Your task to perform on an android device: Go to notification settings Image 0: 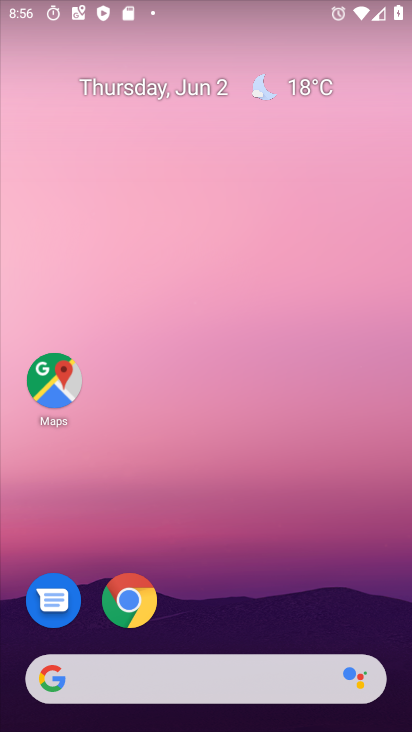
Step 0: drag from (375, 614) to (388, 185)
Your task to perform on an android device: Go to notification settings Image 1: 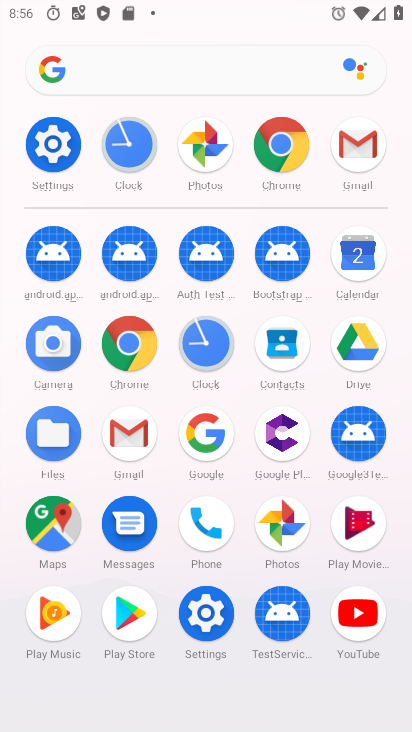
Step 1: click (63, 163)
Your task to perform on an android device: Go to notification settings Image 2: 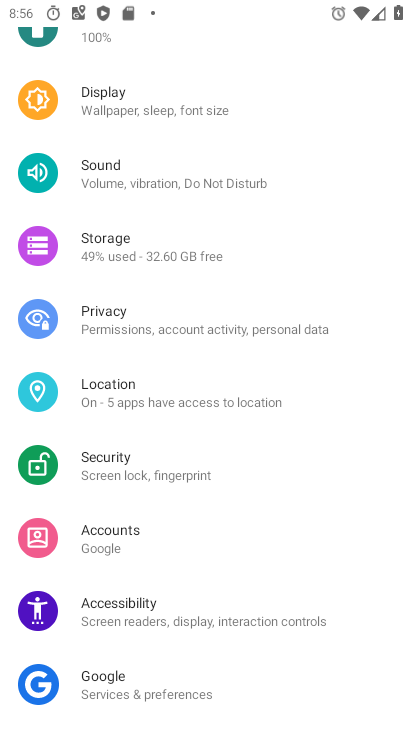
Step 2: drag from (290, 507) to (310, 423)
Your task to perform on an android device: Go to notification settings Image 3: 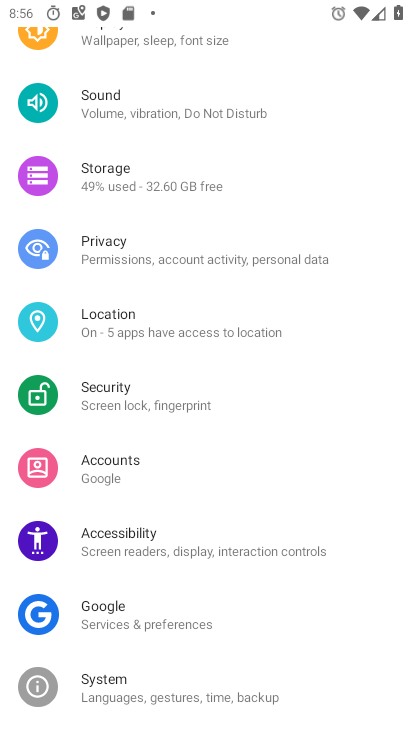
Step 3: drag from (340, 574) to (348, 476)
Your task to perform on an android device: Go to notification settings Image 4: 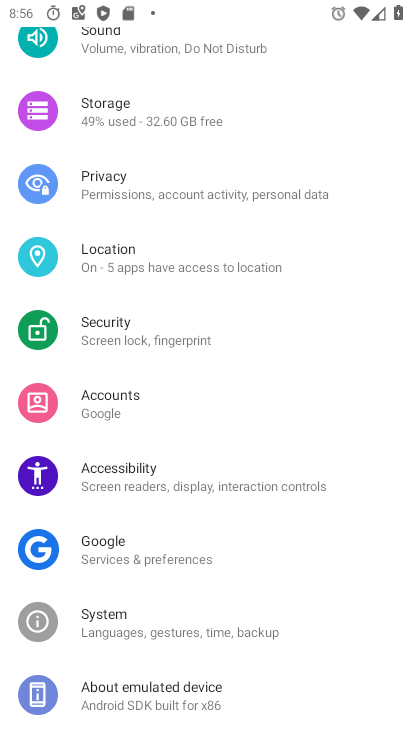
Step 4: drag from (358, 573) to (365, 448)
Your task to perform on an android device: Go to notification settings Image 5: 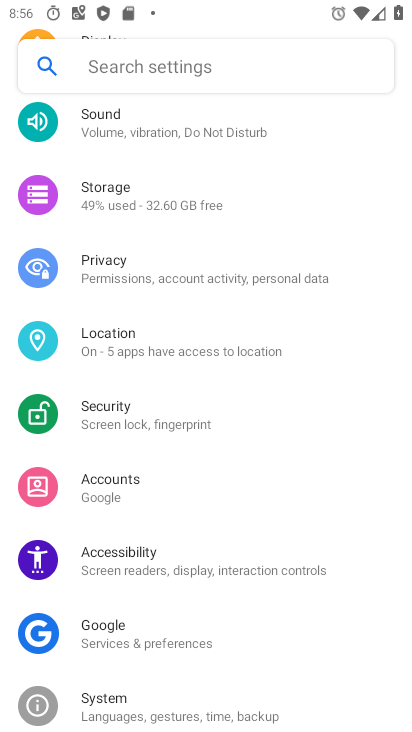
Step 5: drag from (350, 365) to (341, 450)
Your task to perform on an android device: Go to notification settings Image 6: 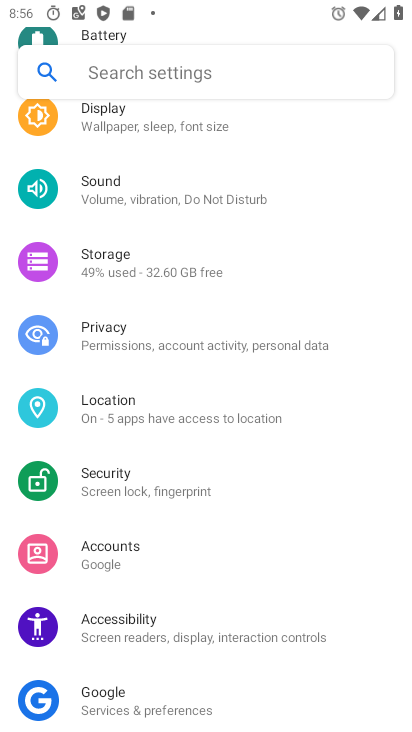
Step 6: drag from (352, 339) to (341, 431)
Your task to perform on an android device: Go to notification settings Image 7: 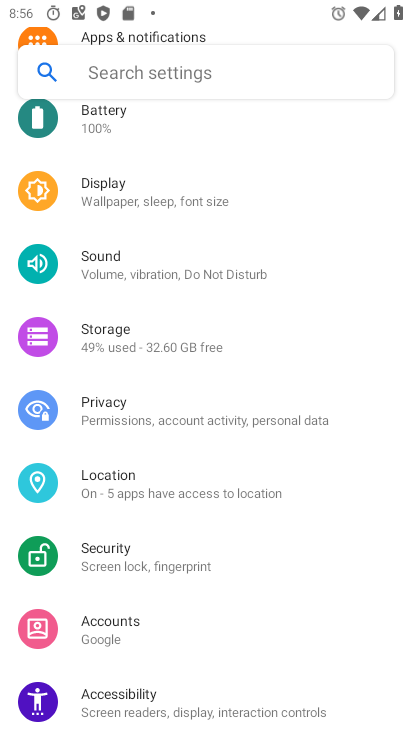
Step 7: drag from (349, 340) to (349, 437)
Your task to perform on an android device: Go to notification settings Image 8: 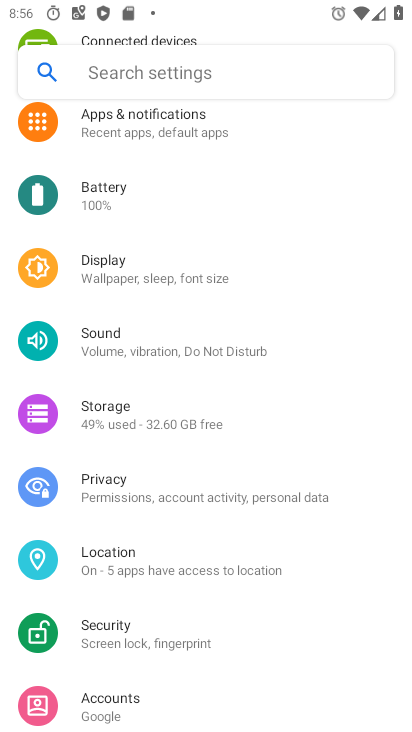
Step 8: drag from (343, 380) to (344, 454)
Your task to perform on an android device: Go to notification settings Image 9: 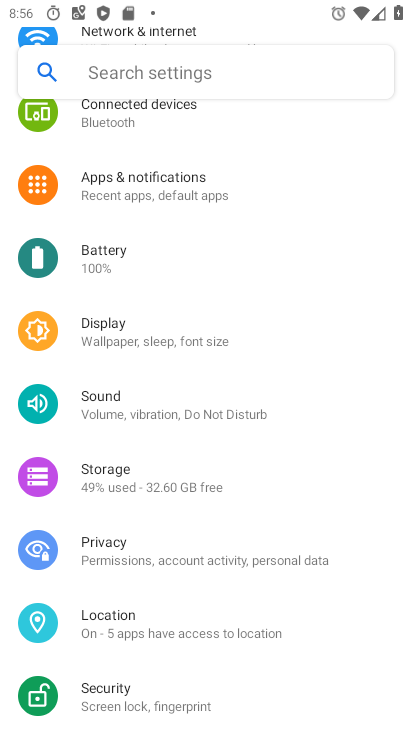
Step 9: drag from (337, 388) to (334, 510)
Your task to perform on an android device: Go to notification settings Image 10: 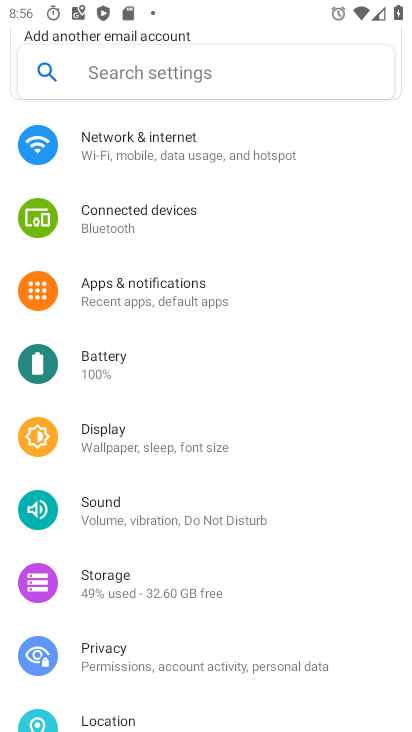
Step 10: drag from (321, 345) to (331, 470)
Your task to perform on an android device: Go to notification settings Image 11: 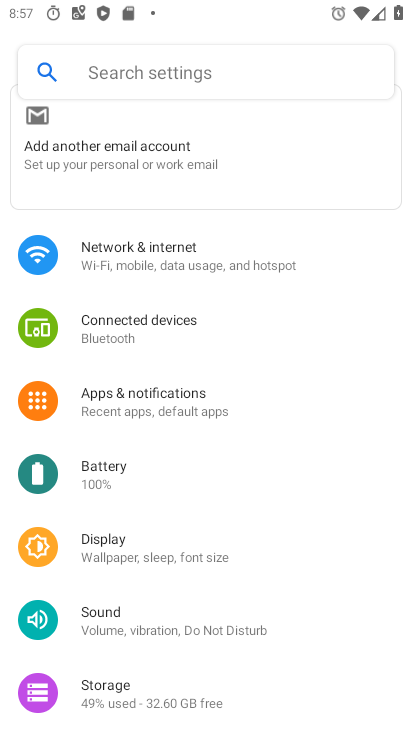
Step 11: drag from (340, 341) to (346, 462)
Your task to perform on an android device: Go to notification settings Image 12: 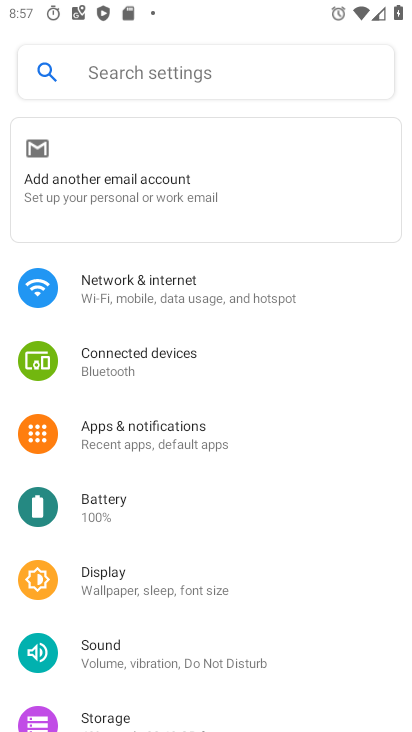
Step 12: click (216, 458)
Your task to perform on an android device: Go to notification settings Image 13: 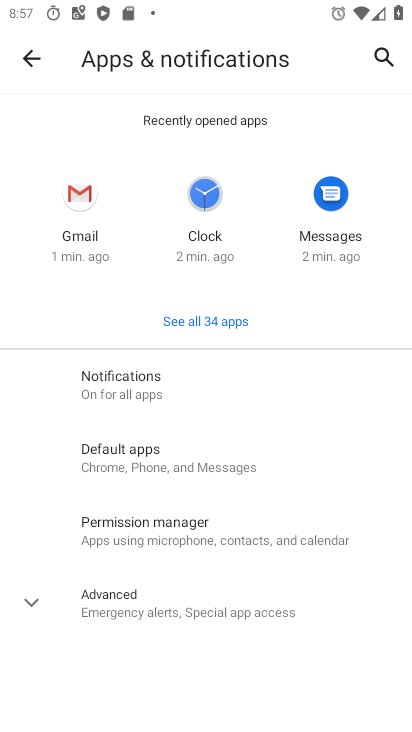
Step 13: click (156, 397)
Your task to perform on an android device: Go to notification settings Image 14: 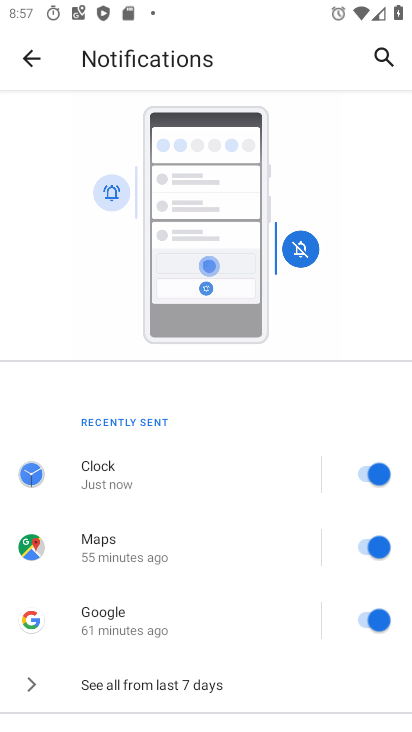
Step 14: task complete